Your task to perform on an android device: Show me productivity apps on the Play Store Image 0: 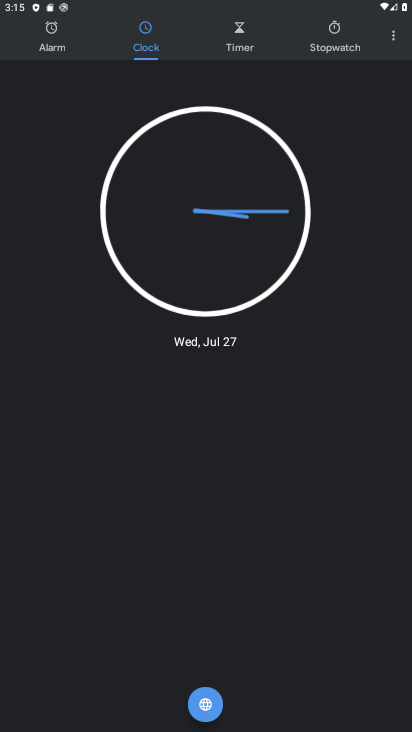
Step 0: press home button
Your task to perform on an android device: Show me productivity apps on the Play Store Image 1: 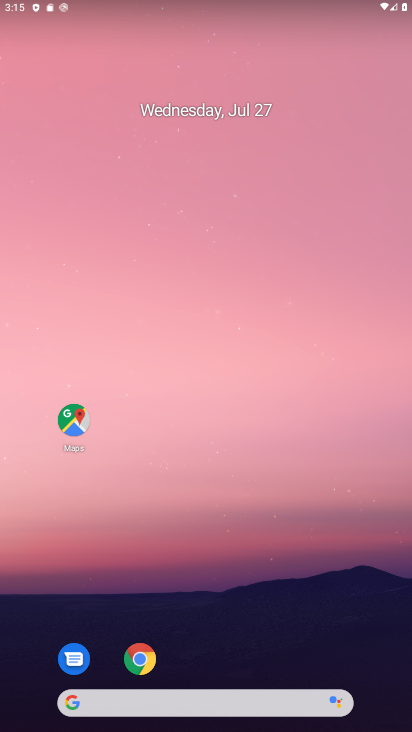
Step 1: drag from (239, 670) to (233, 42)
Your task to perform on an android device: Show me productivity apps on the Play Store Image 2: 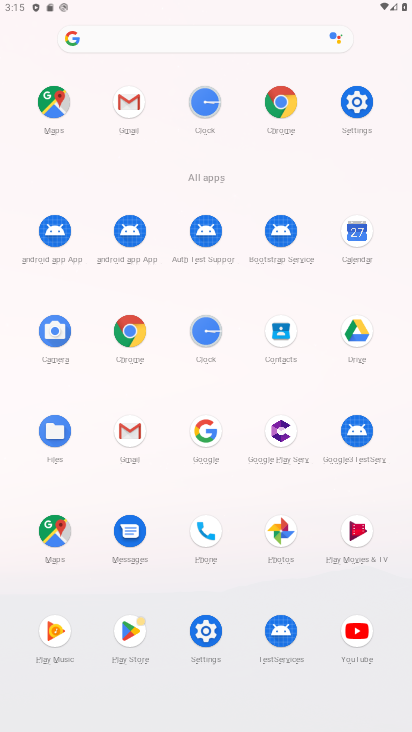
Step 2: click (121, 624)
Your task to perform on an android device: Show me productivity apps on the Play Store Image 3: 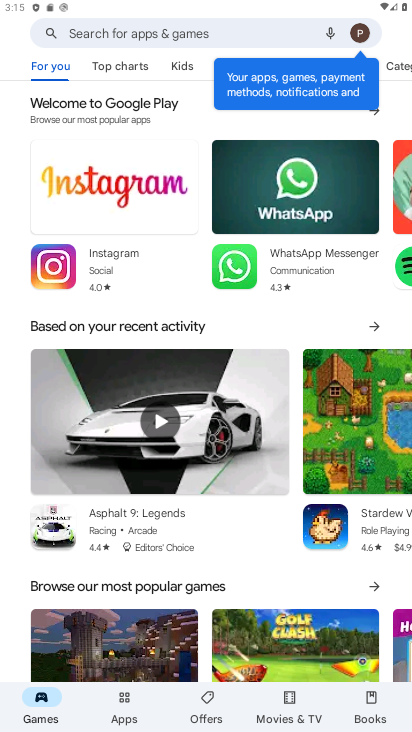
Step 3: click (136, 714)
Your task to perform on an android device: Show me productivity apps on the Play Store Image 4: 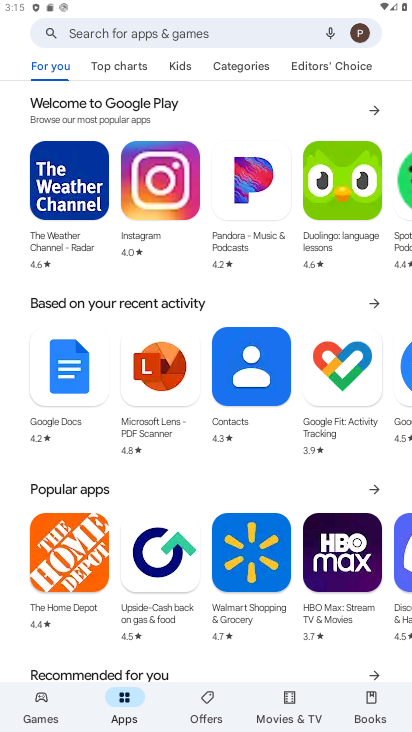
Step 4: click (240, 65)
Your task to perform on an android device: Show me productivity apps on the Play Store Image 5: 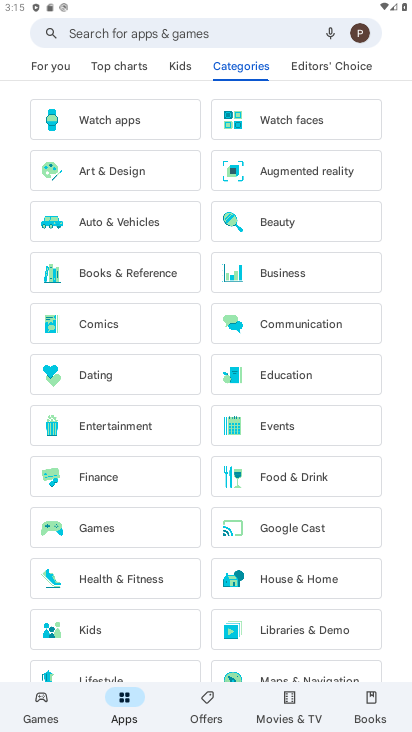
Step 5: drag from (235, 620) to (220, 283)
Your task to perform on an android device: Show me productivity apps on the Play Store Image 6: 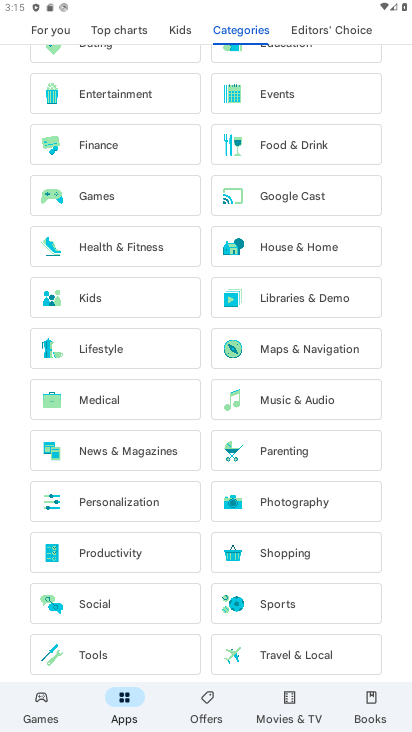
Step 6: drag from (227, 539) to (233, 343)
Your task to perform on an android device: Show me productivity apps on the Play Store Image 7: 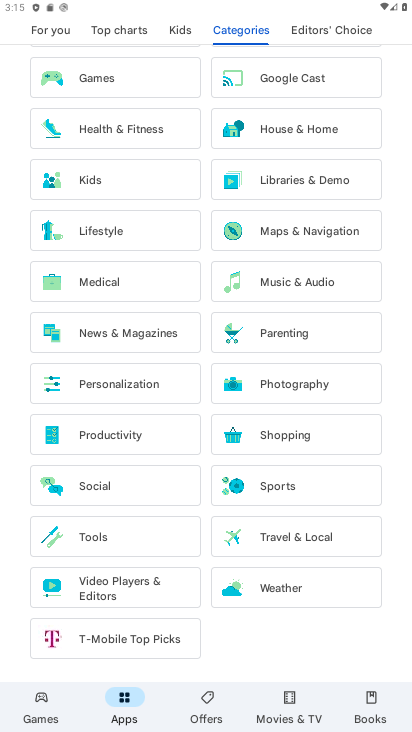
Step 7: click (93, 429)
Your task to perform on an android device: Show me productivity apps on the Play Store Image 8: 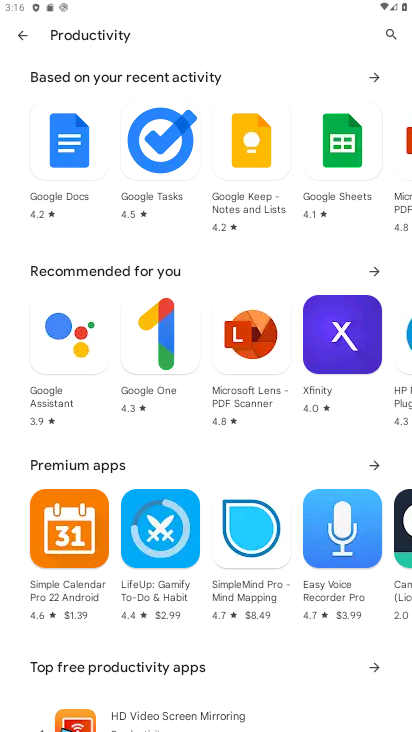
Step 8: task complete